Your task to perform on an android device: Search for Italian restaurants on Maps Image 0: 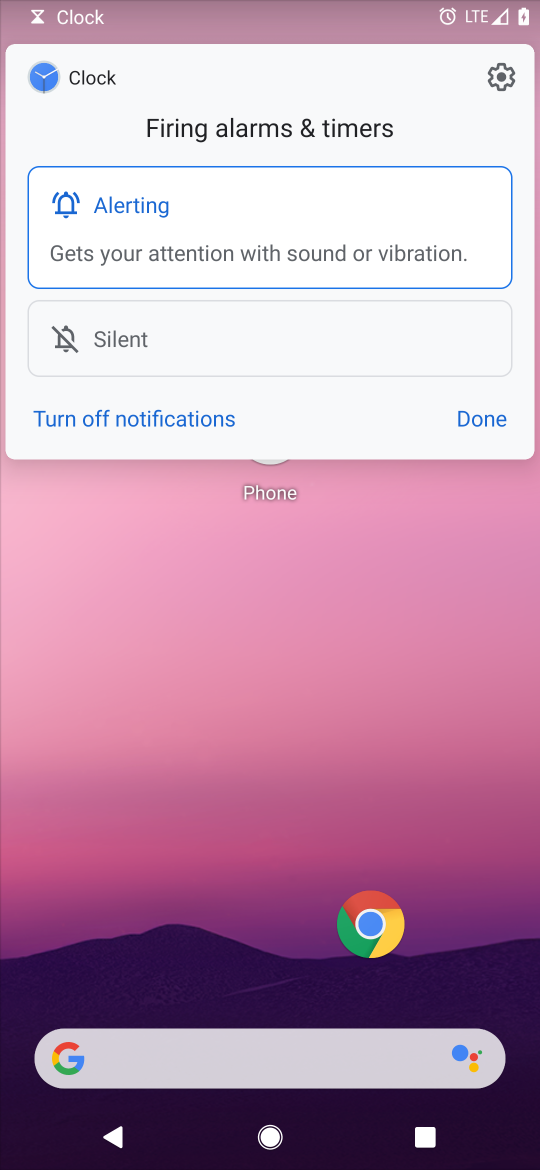
Step 0: click (478, 407)
Your task to perform on an android device: Search for Italian restaurants on Maps Image 1: 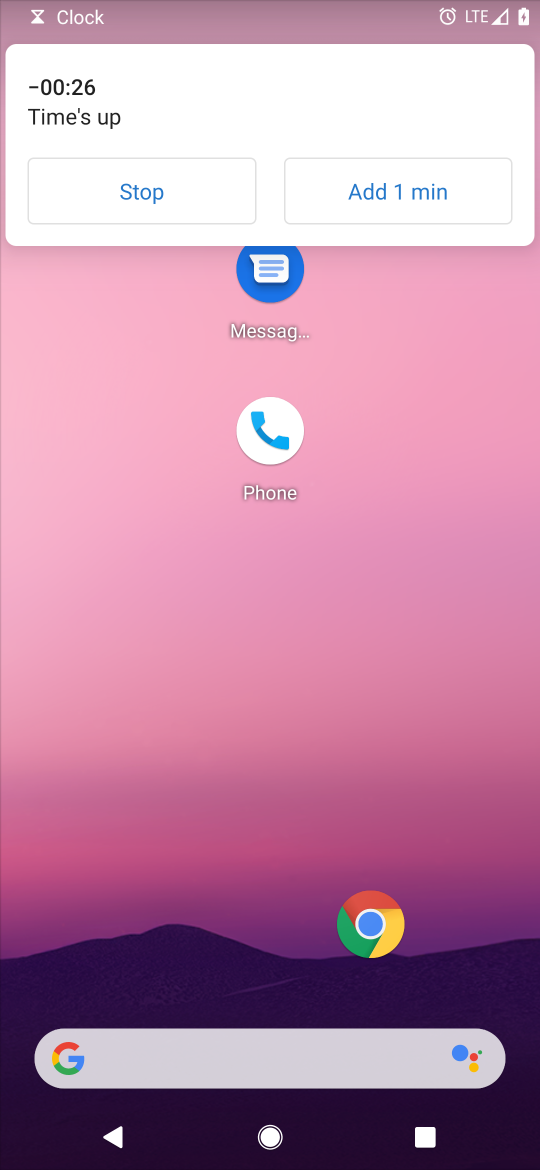
Step 1: click (125, 196)
Your task to perform on an android device: Search for Italian restaurants on Maps Image 2: 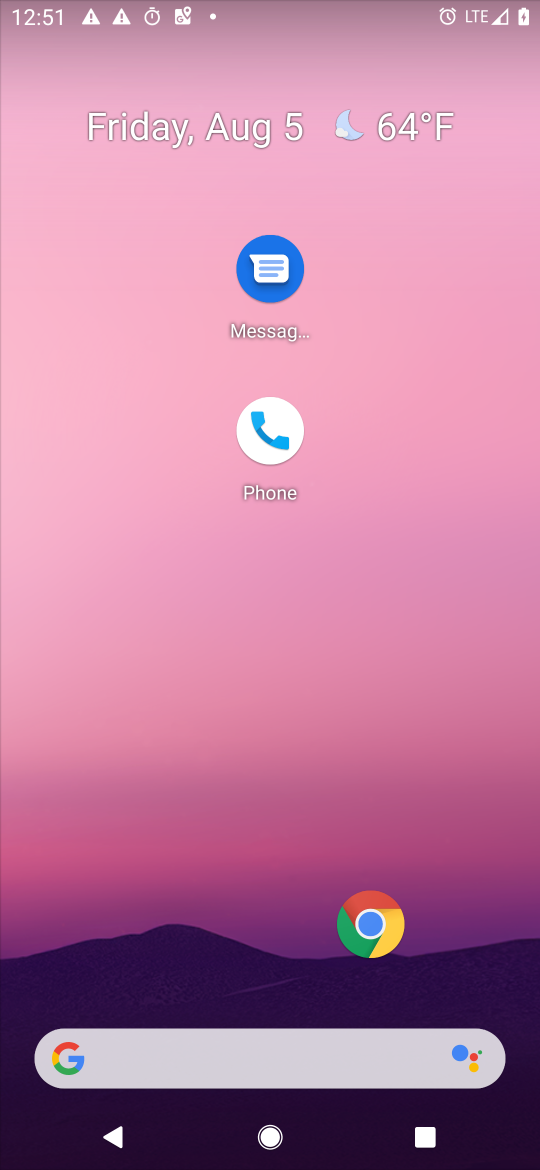
Step 2: press home button
Your task to perform on an android device: Search for Italian restaurants on Maps Image 3: 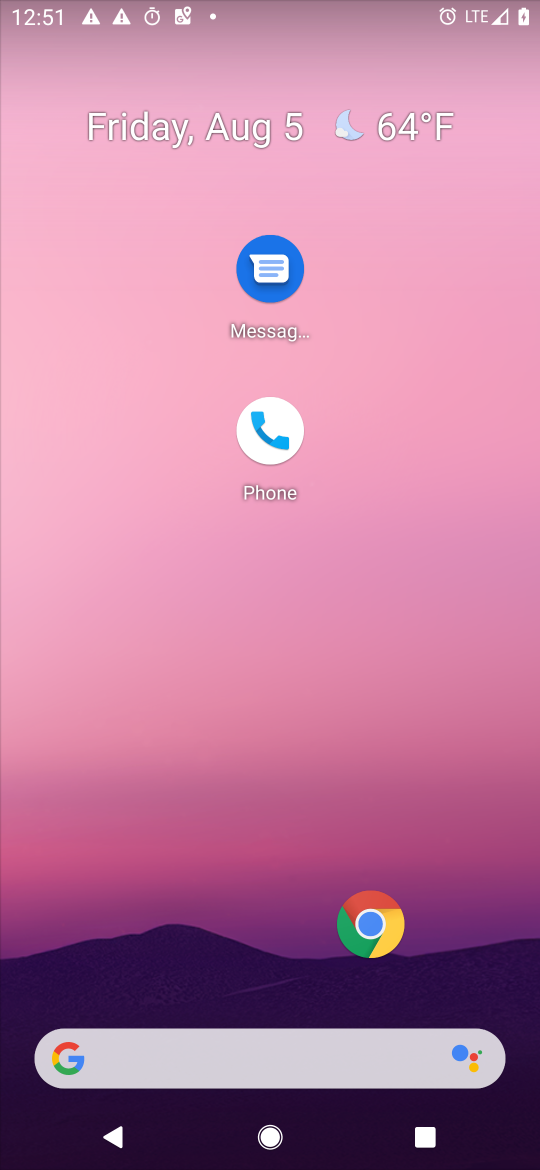
Step 3: drag from (267, 959) to (291, 737)
Your task to perform on an android device: Search for Italian restaurants on Maps Image 4: 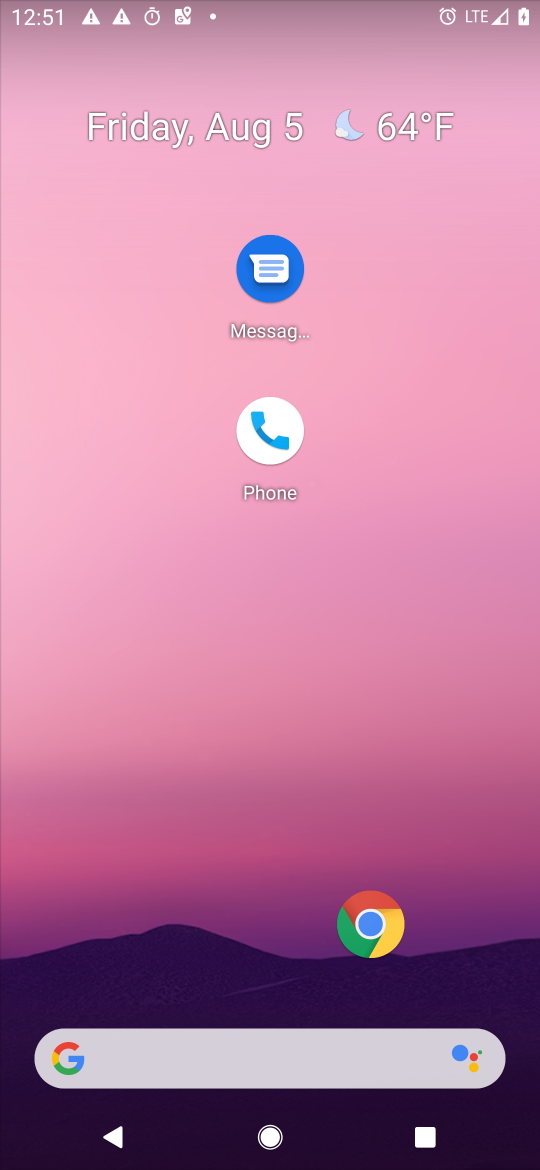
Step 4: drag from (274, 973) to (400, 108)
Your task to perform on an android device: Search for Italian restaurants on Maps Image 5: 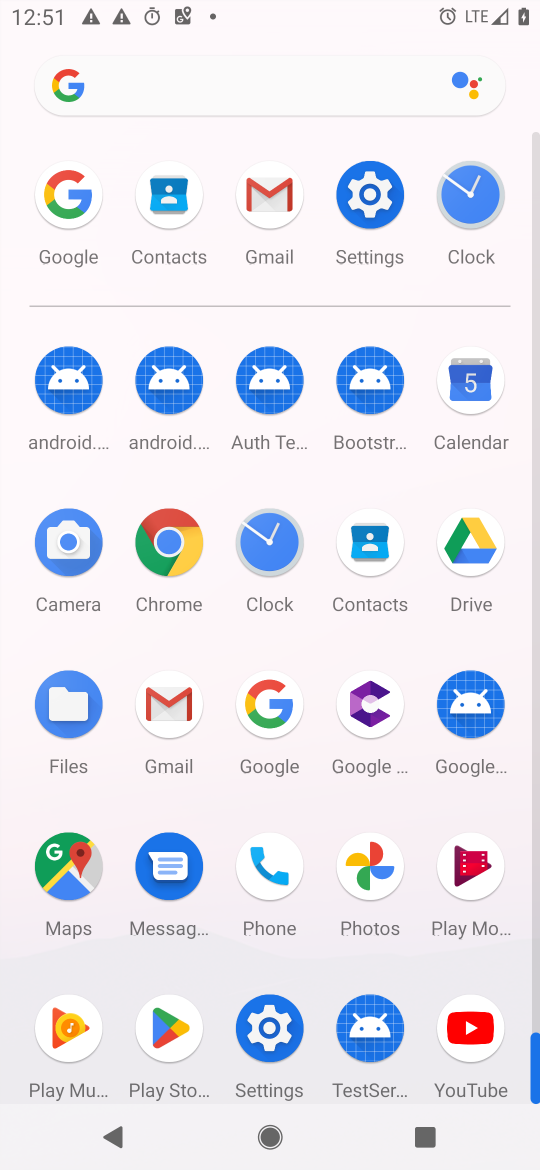
Step 5: click (46, 859)
Your task to perform on an android device: Search for Italian restaurants on Maps Image 6: 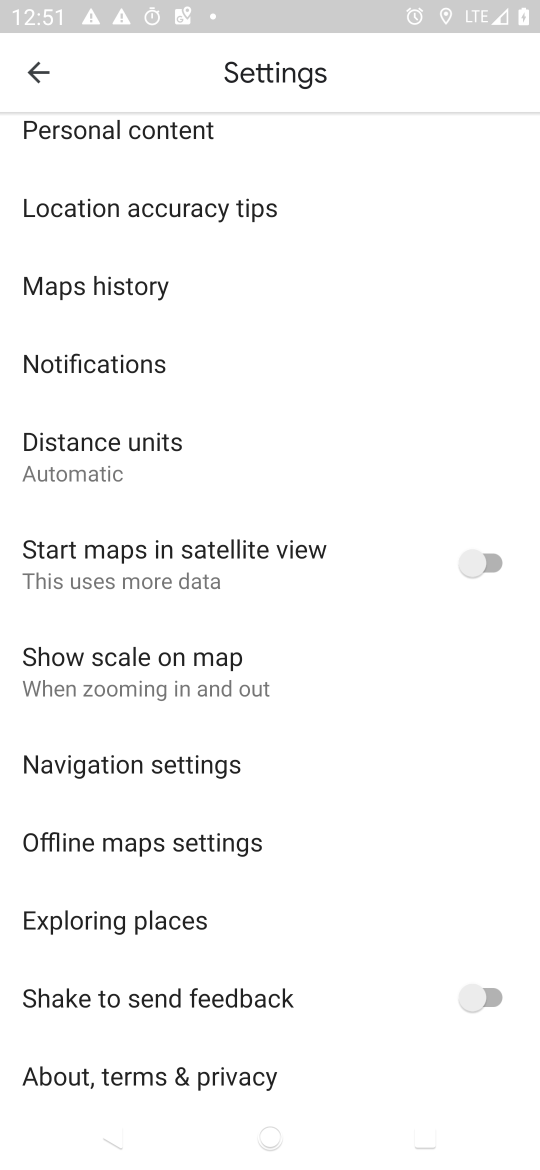
Step 6: press back button
Your task to perform on an android device: Search for Italian restaurants on Maps Image 7: 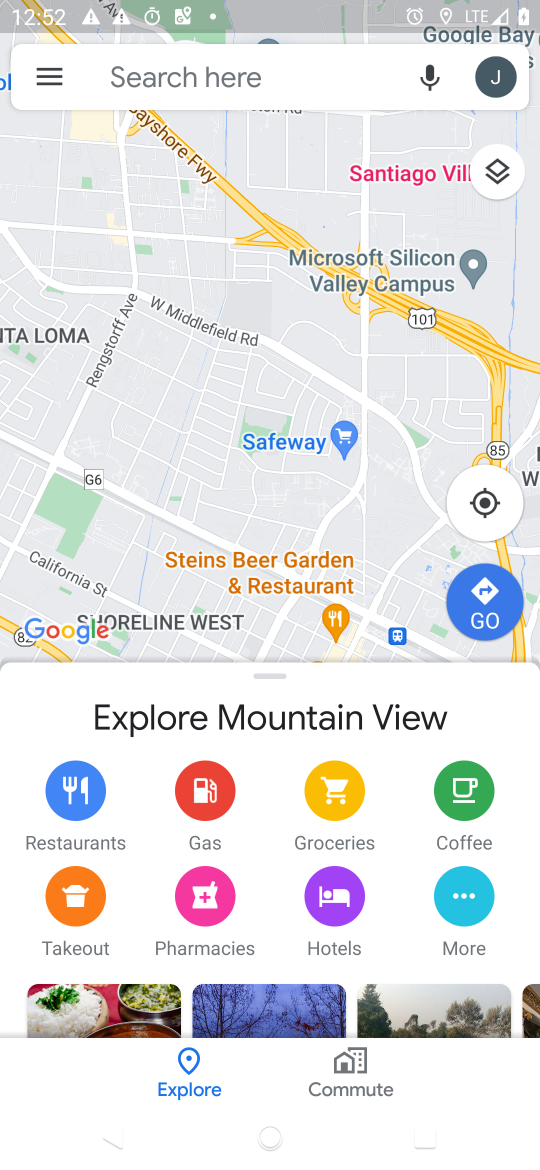
Step 7: click (194, 68)
Your task to perform on an android device: Search for Italian restaurants on Maps Image 8: 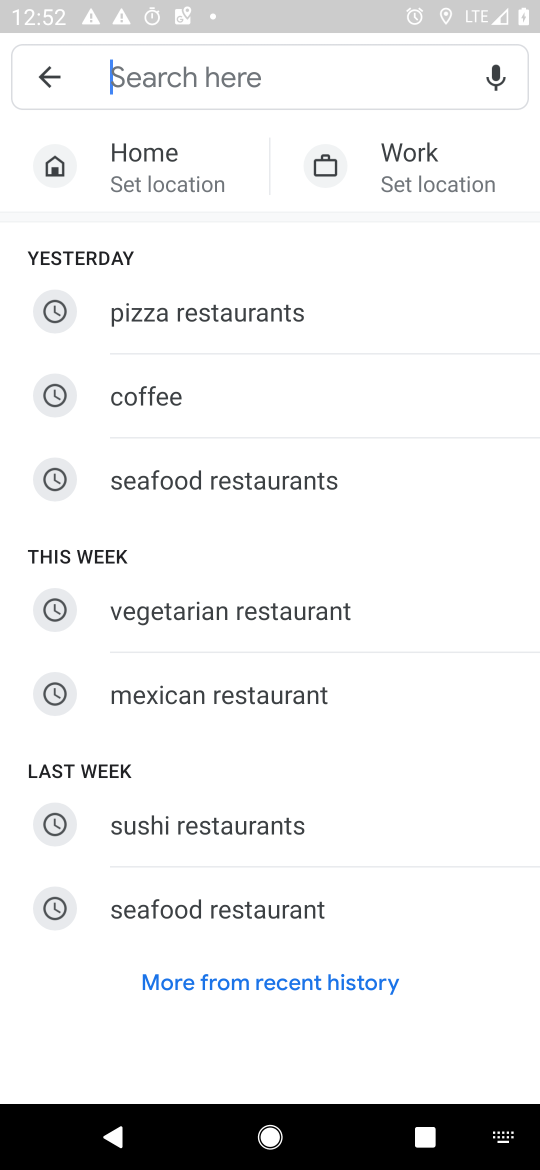
Step 8: type "Italian restaurants"
Your task to perform on an android device: Search for Italian restaurants on Maps Image 9: 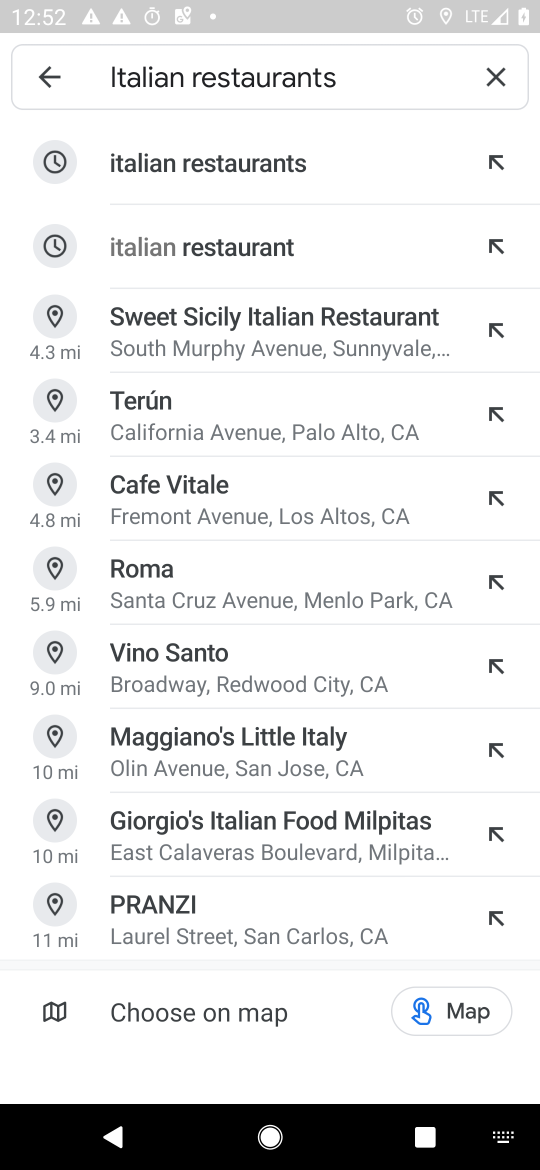
Step 9: click (202, 179)
Your task to perform on an android device: Search for Italian restaurants on Maps Image 10: 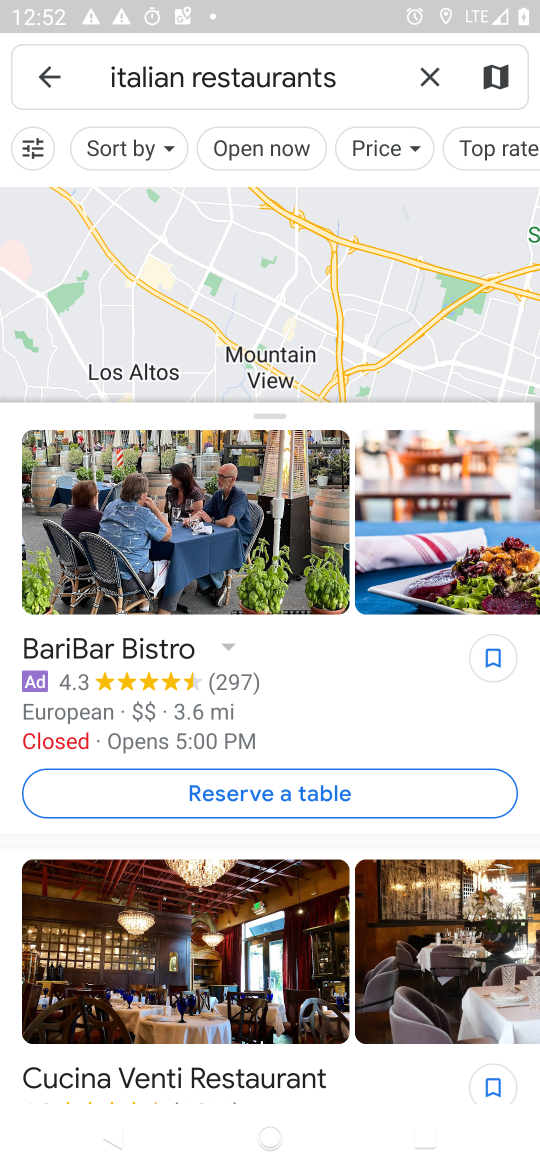
Step 10: task complete